Your task to perform on an android device: Open battery settings Image 0: 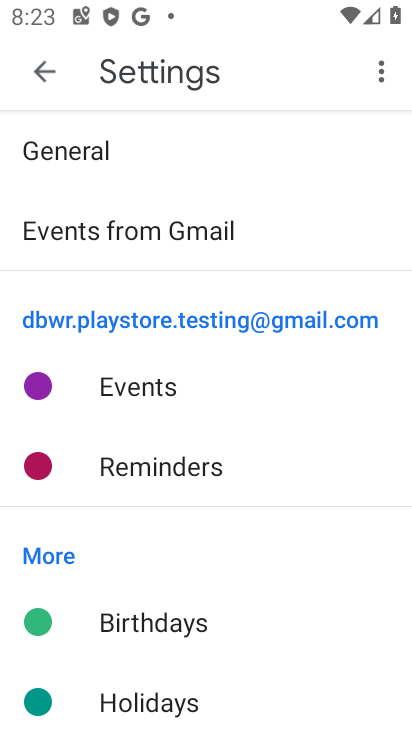
Step 0: press home button
Your task to perform on an android device: Open battery settings Image 1: 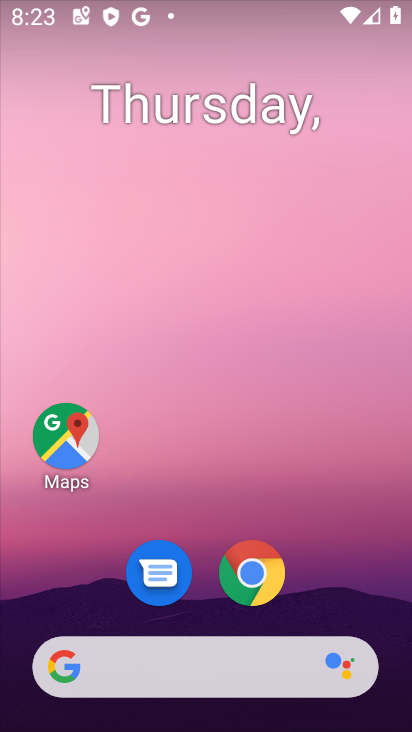
Step 1: drag from (389, 577) to (373, 168)
Your task to perform on an android device: Open battery settings Image 2: 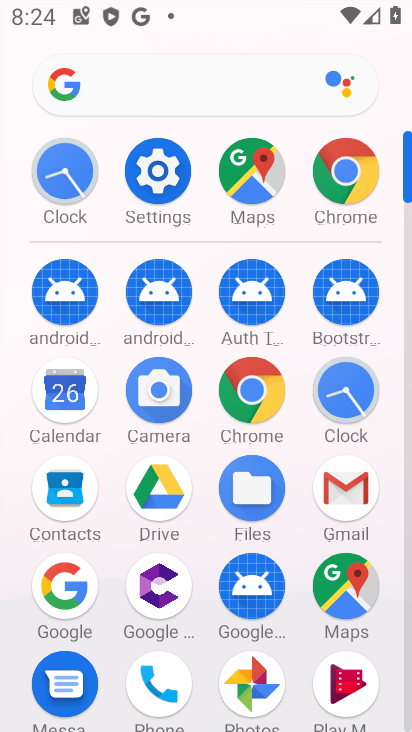
Step 2: click (163, 213)
Your task to perform on an android device: Open battery settings Image 3: 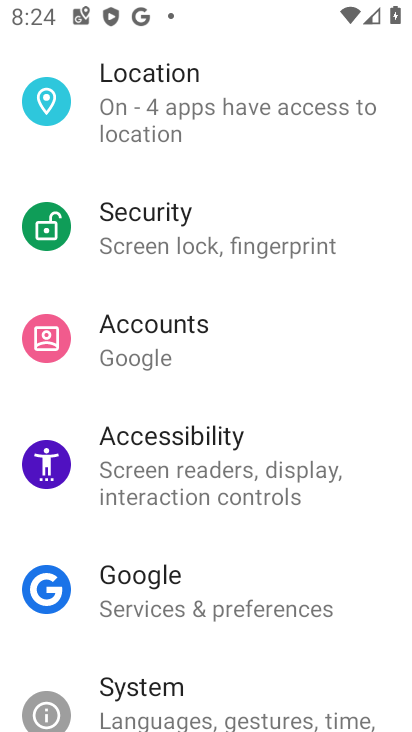
Step 3: drag from (191, 188) to (268, 595)
Your task to perform on an android device: Open battery settings Image 4: 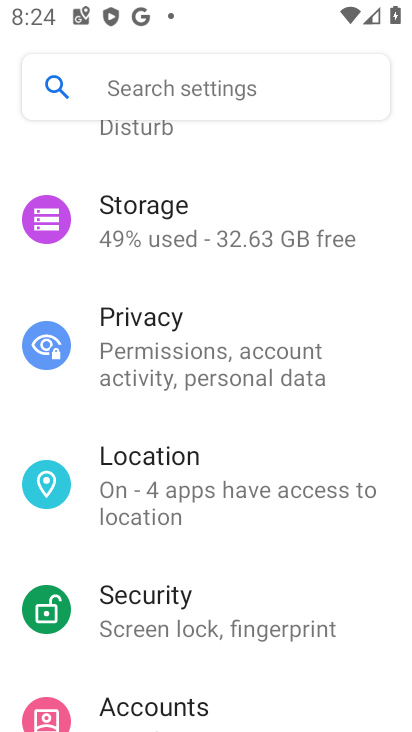
Step 4: drag from (256, 230) to (289, 522)
Your task to perform on an android device: Open battery settings Image 5: 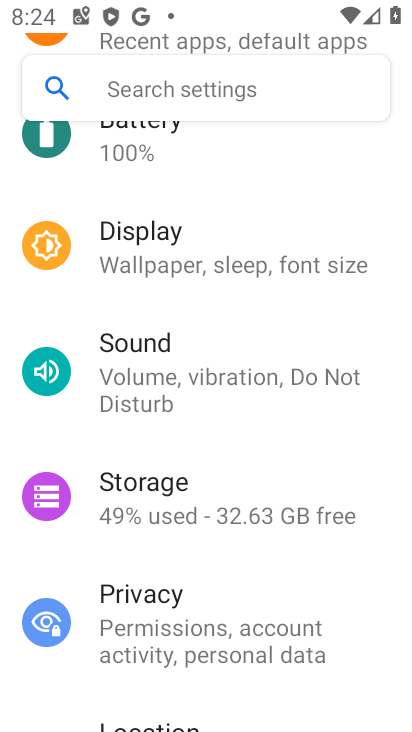
Step 5: drag from (228, 242) to (227, 547)
Your task to perform on an android device: Open battery settings Image 6: 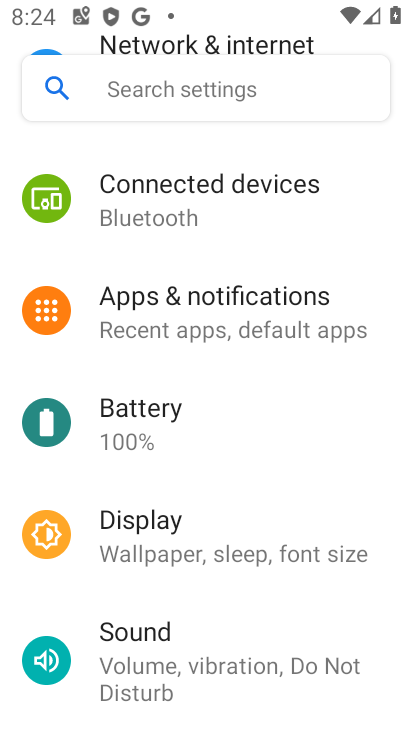
Step 6: click (180, 438)
Your task to perform on an android device: Open battery settings Image 7: 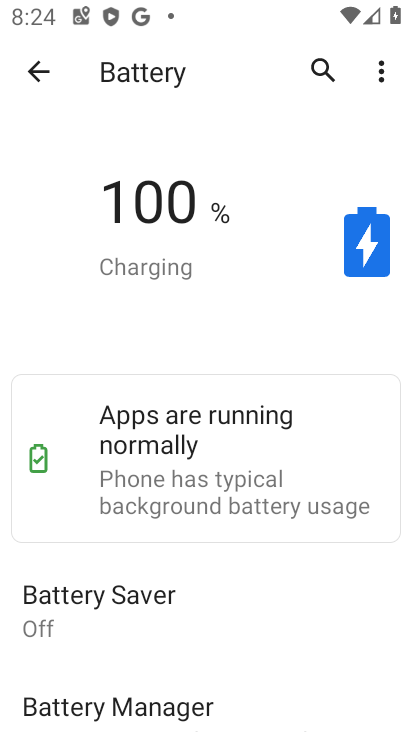
Step 7: task complete